Your task to perform on an android device: change keyboard looks Image 0: 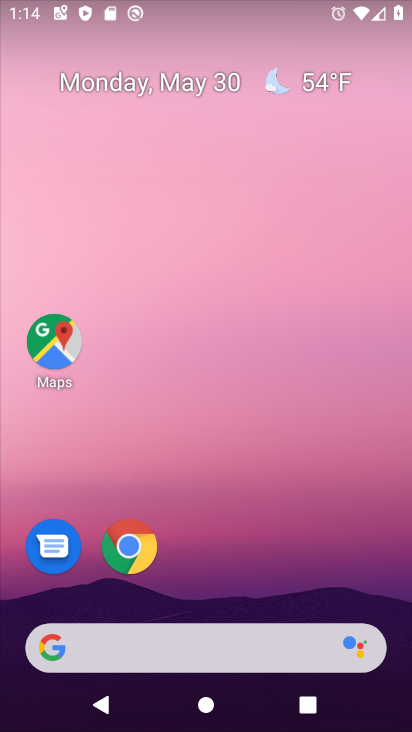
Step 0: press home button
Your task to perform on an android device: change keyboard looks Image 1: 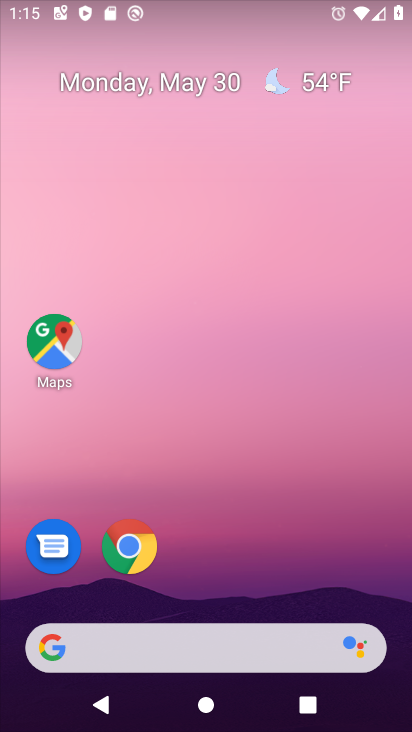
Step 1: drag from (317, 560) to (317, 50)
Your task to perform on an android device: change keyboard looks Image 2: 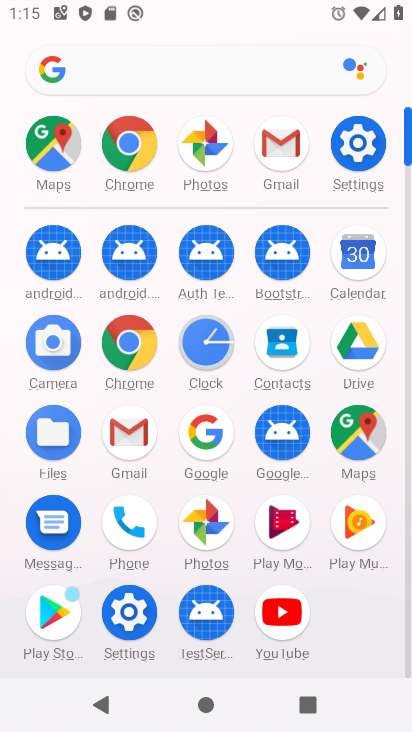
Step 2: click (359, 142)
Your task to perform on an android device: change keyboard looks Image 3: 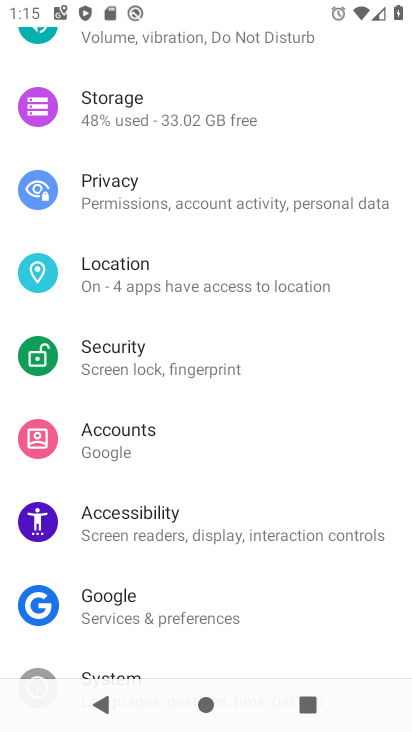
Step 3: drag from (324, 583) to (327, 221)
Your task to perform on an android device: change keyboard looks Image 4: 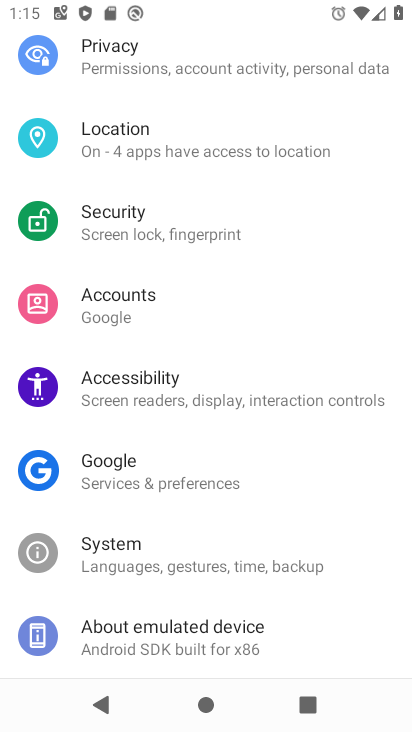
Step 4: click (120, 555)
Your task to perform on an android device: change keyboard looks Image 5: 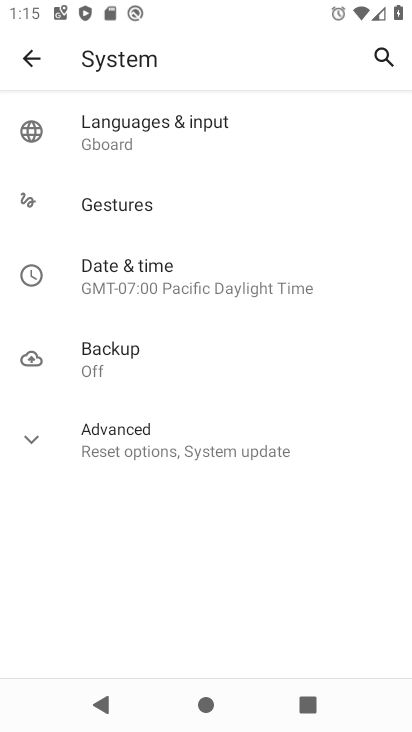
Step 5: click (109, 128)
Your task to perform on an android device: change keyboard looks Image 6: 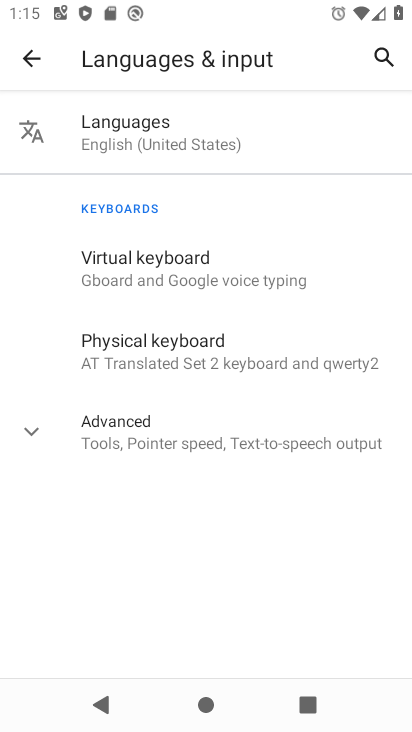
Step 6: click (144, 271)
Your task to perform on an android device: change keyboard looks Image 7: 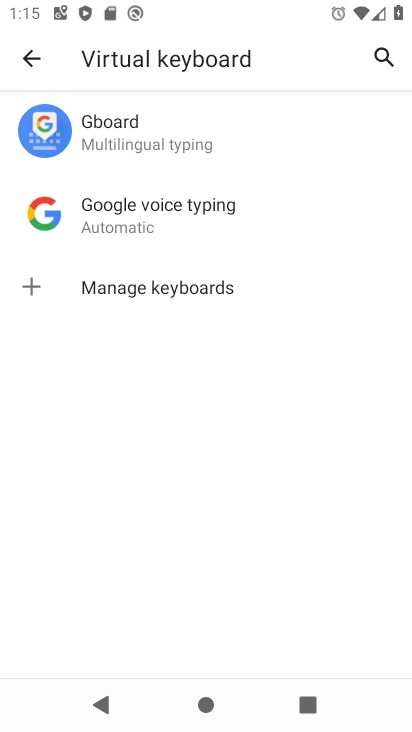
Step 7: click (111, 140)
Your task to perform on an android device: change keyboard looks Image 8: 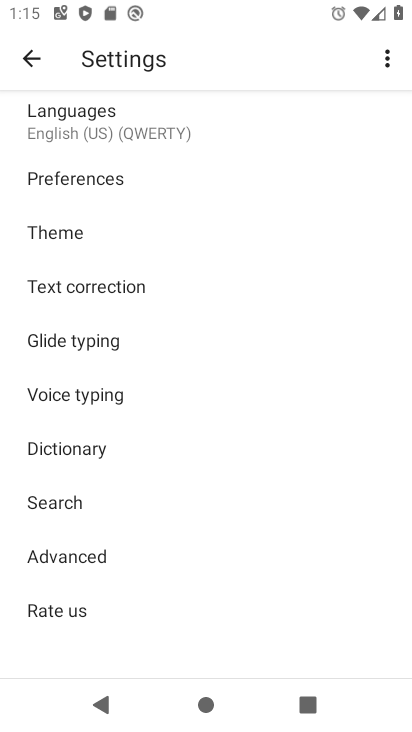
Step 8: click (54, 231)
Your task to perform on an android device: change keyboard looks Image 9: 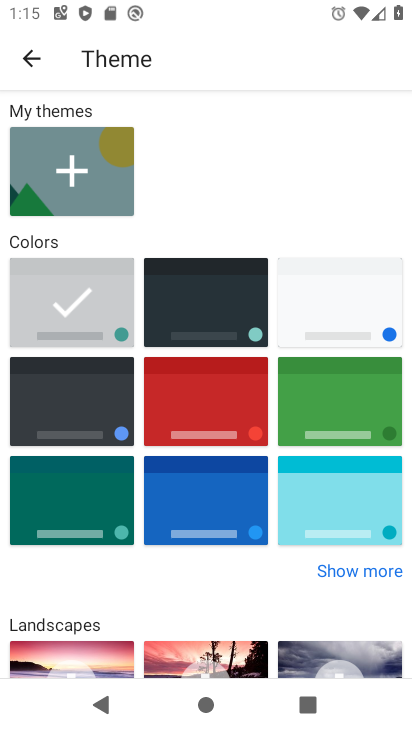
Step 9: click (196, 295)
Your task to perform on an android device: change keyboard looks Image 10: 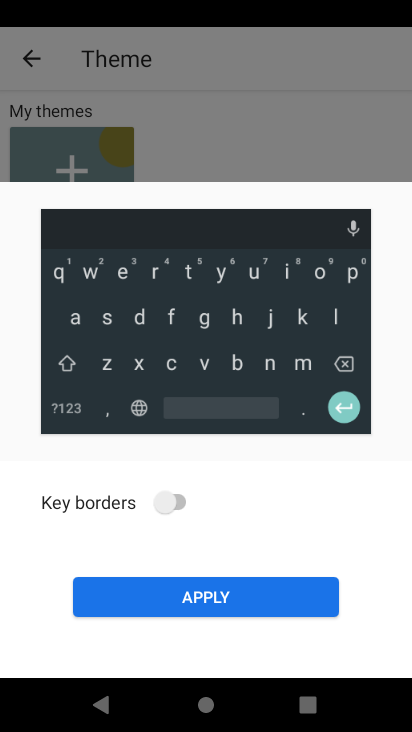
Step 10: click (261, 596)
Your task to perform on an android device: change keyboard looks Image 11: 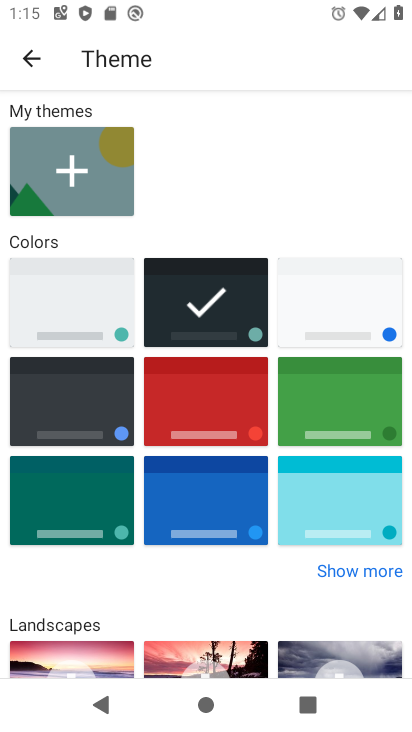
Step 11: task complete